Your task to perform on an android device: Open Reddit.com Image 0: 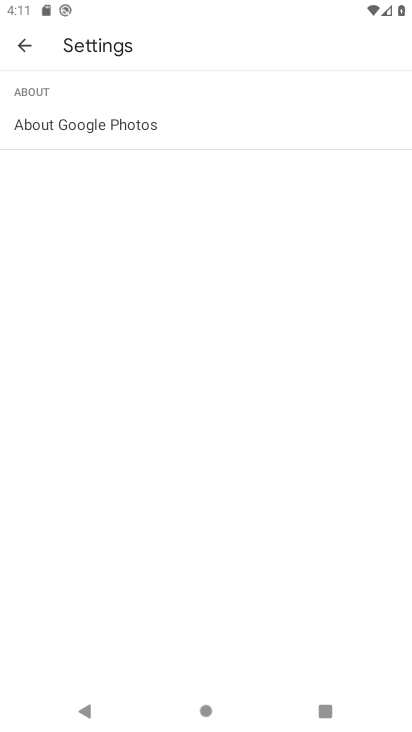
Step 0: press home button
Your task to perform on an android device: Open Reddit.com Image 1: 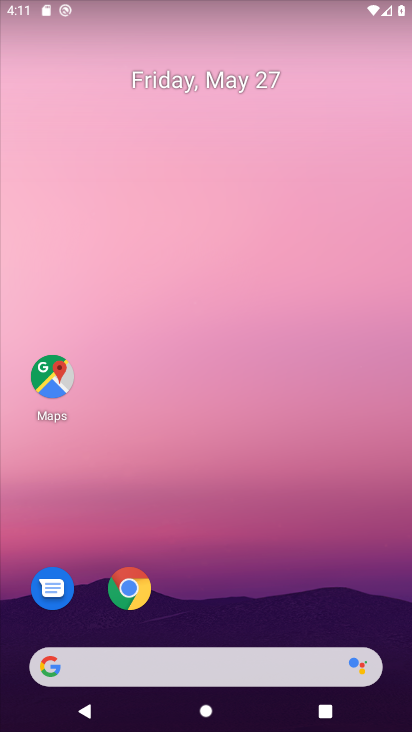
Step 1: click (128, 600)
Your task to perform on an android device: Open Reddit.com Image 2: 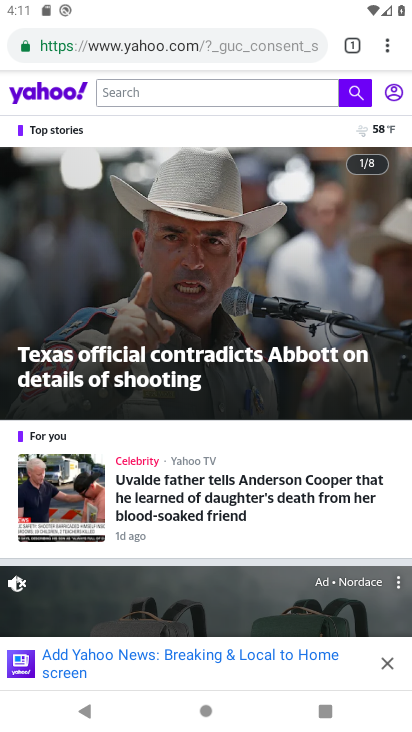
Step 2: click (361, 49)
Your task to perform on an android device: Open Reddit.com Image 3: 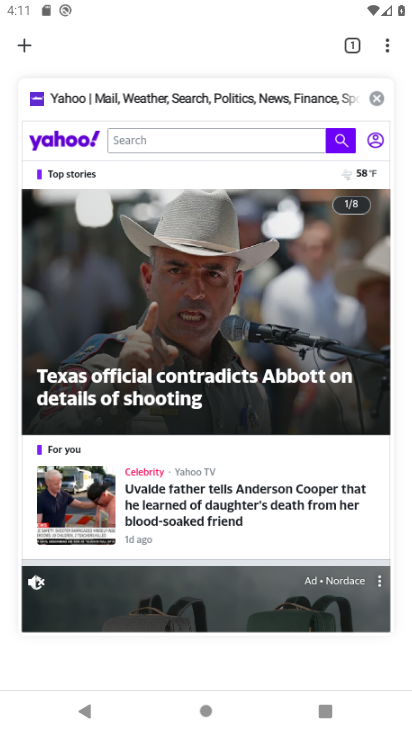
Step 3: click (375, 101)
Your task to perform on an android device: Open Reddit.com Image 4: 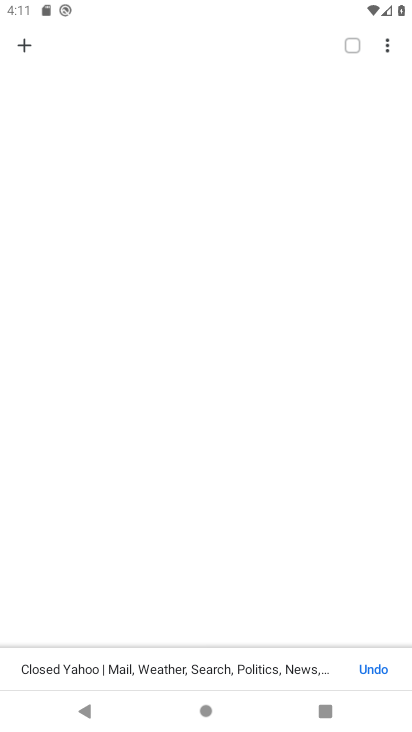
Step 4: click (22, 46)
Your task to perform on an android device: Open Reddit.com Image 5: 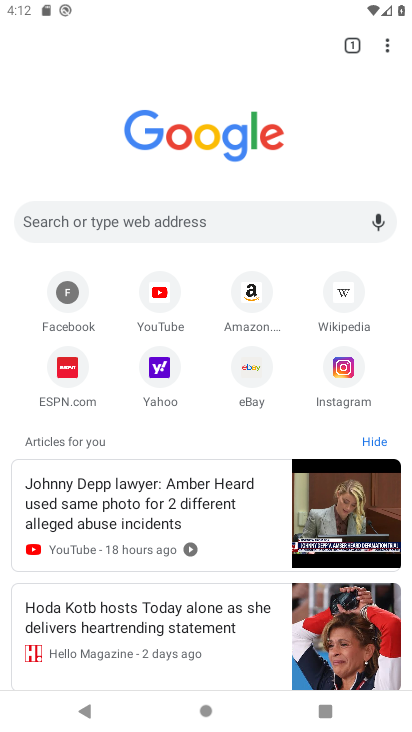
Step 5: click (191, 219)
Your task to perform on an android device: Open Reddit.com Image 6: 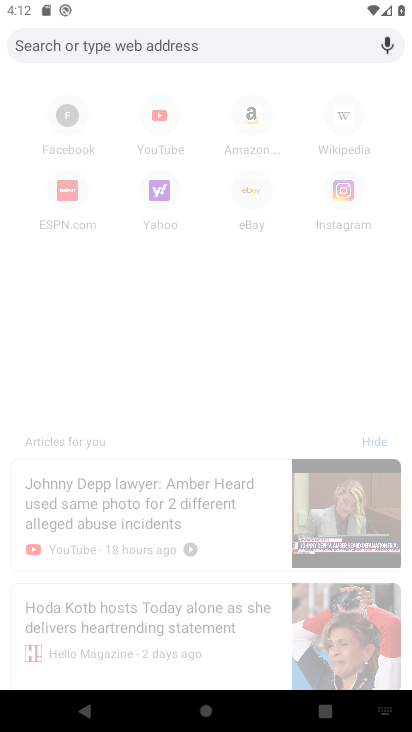
Step 6: type "reddit.com"
Your task to perform on an android device: Open Reddit.com Image 7: 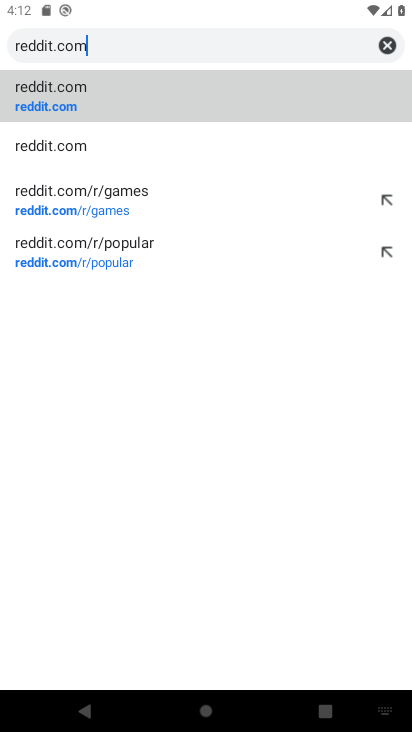
Step 7: click (176, 91)
Your task to perform on an android device: Open Reddit.com Image 8: 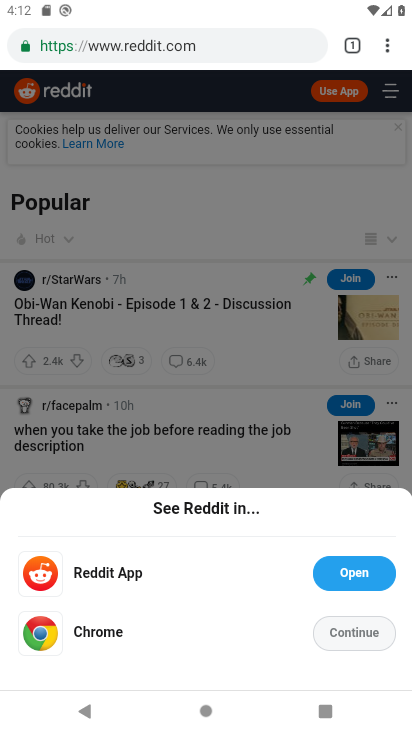
Step 8: task complete